Your task to perform on an android device: open app "WhatsApp Messenger" (install if not already installed) and enter user name: "cartons@outlook.com" and password: "approximated" Image 0: 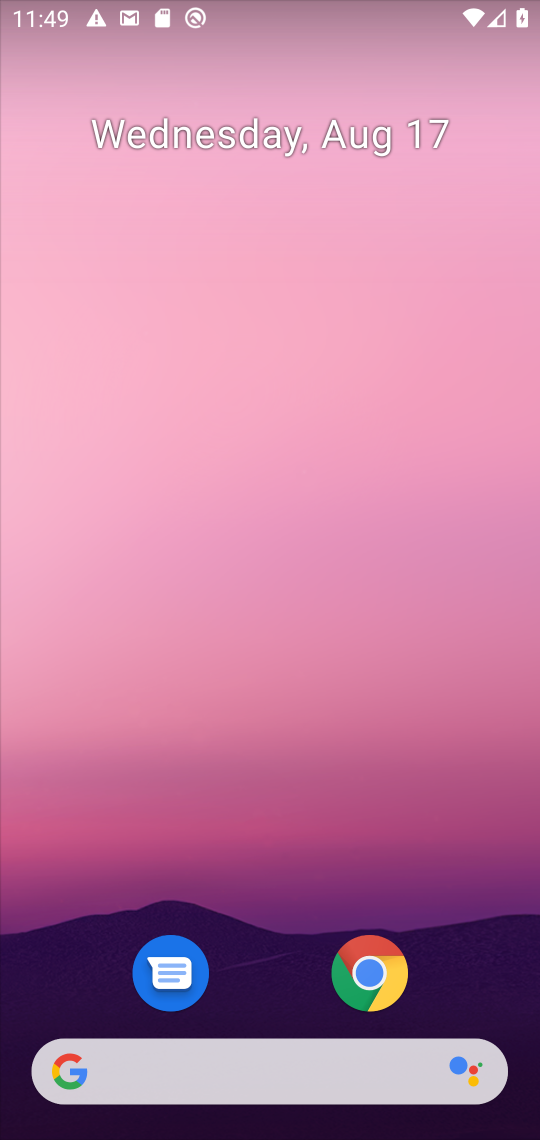
Step 0: drag from (277, 832) to (279, 131)
Your task to perform on an android device: open app "WhatsApp Messenger" (install if not already installed) and enter user name: "cartons@outlook.com" and password: "approximated" Image 1: 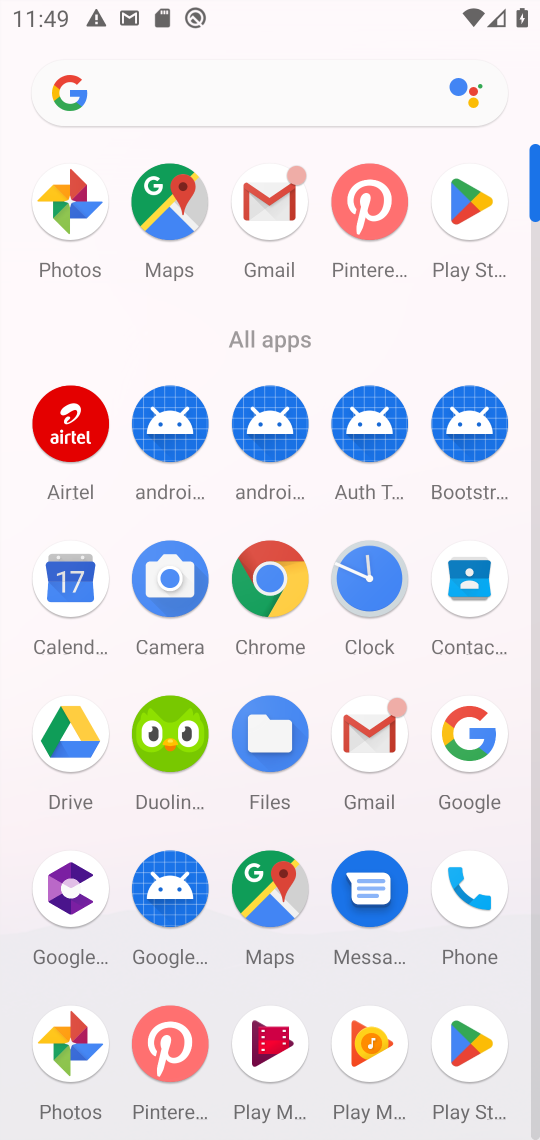
Step 1: click (466, 197)
Your task to perform on an android device: open app "WhatsApp Messenger" (install if not already installed) and enter user name: "cartons@outlook.com" and password: "approximated" Image 2: 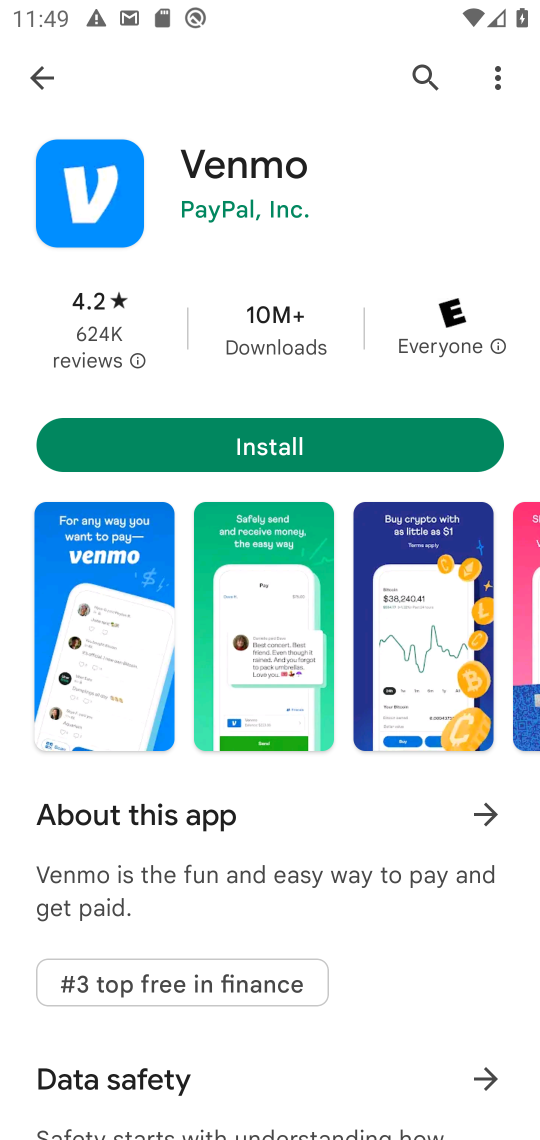
Step 2: click (422, 69)
Your task to perform on an android device: open app "WhatsApp Messenger" (install if not already installed) and enter user name: "cartons@outlook.com" and password: "approximated" Image 3: 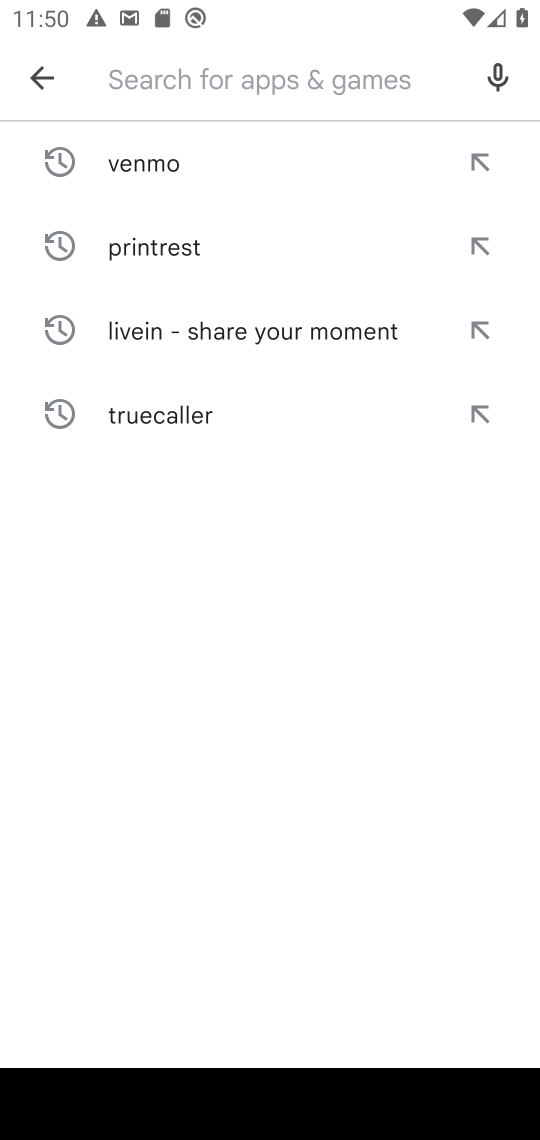
Step 3: type "WhatsApp Messenge"
Your task to perform on an android device: open app "WhatsApp Messenger" (install if not already installed) and enter user name: "cartons@outlook.com" and password: "approximated" Image 4: 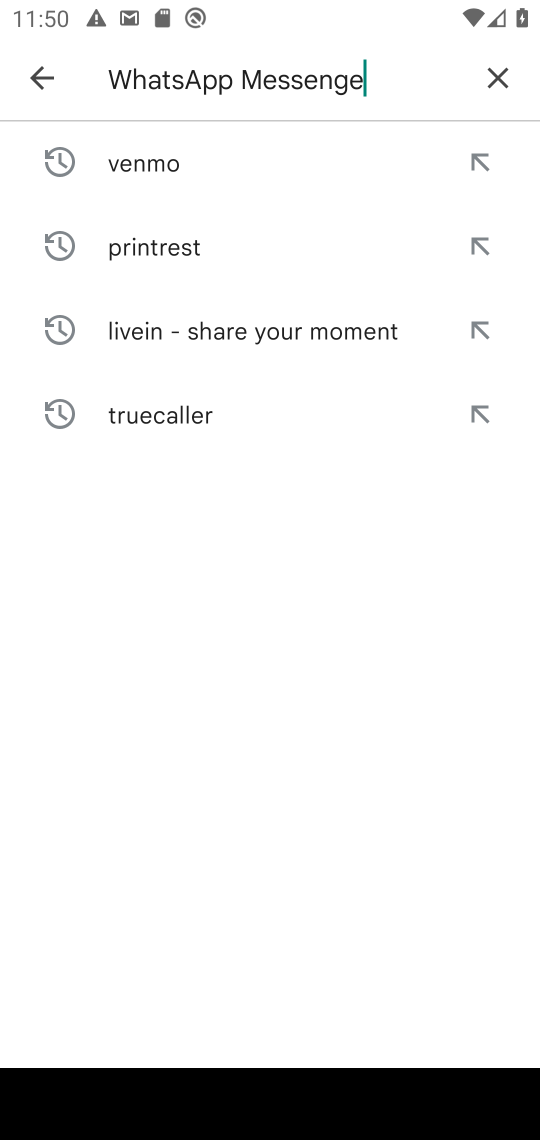
Step 4: type ""
Your task to perform on an android device: open app "WhatsApp Messenger" (install if not already installed) and enter user name: "cartons@outlook.com" and password: "approximated" Image 5: 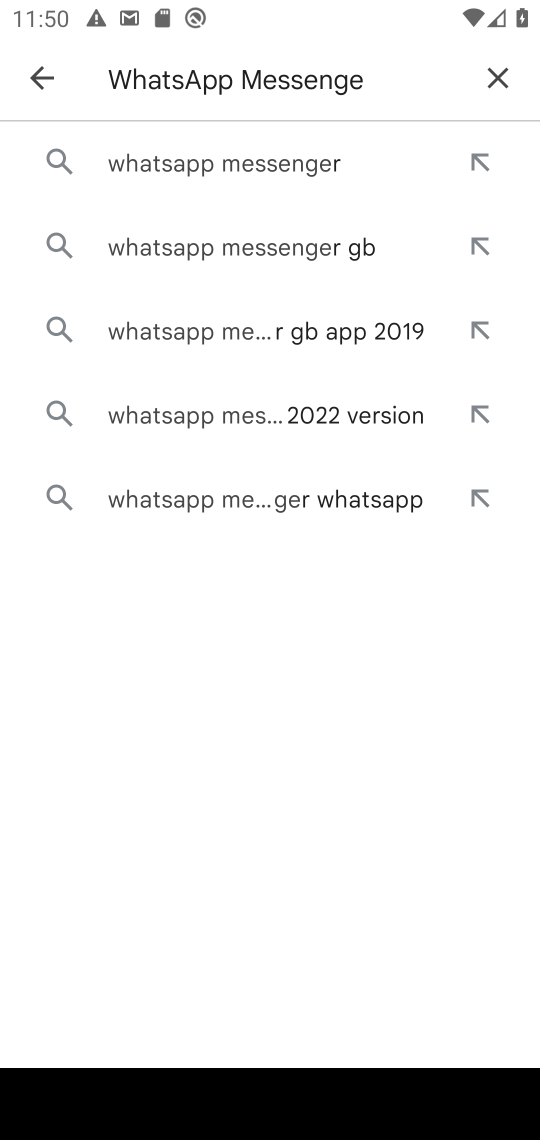
Step 5: click (245, 166)
Your task to perform on an android device: open app "WhatsApp Messenger" (install if not already installed) and enter user name: "cartons@outlook.com" and password: "approximated" Image 6: 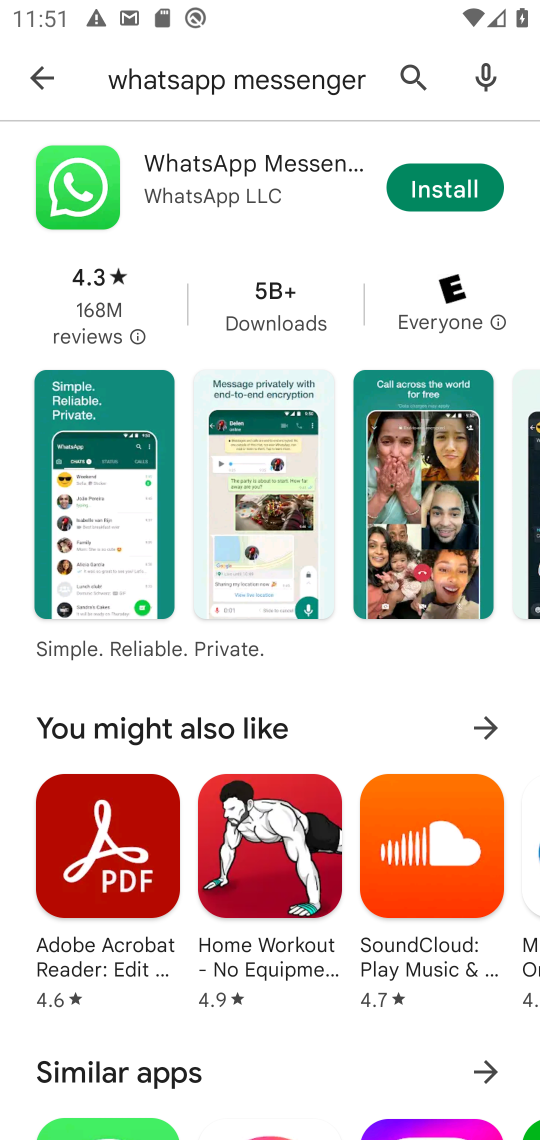
Step 6: click (448, 193)
Your task to perform on an android device: open app "WhatsApp Messenger" (install if not already installed) and enter user name: "cartons@outlook.com" and password: "approximated" Image 7: 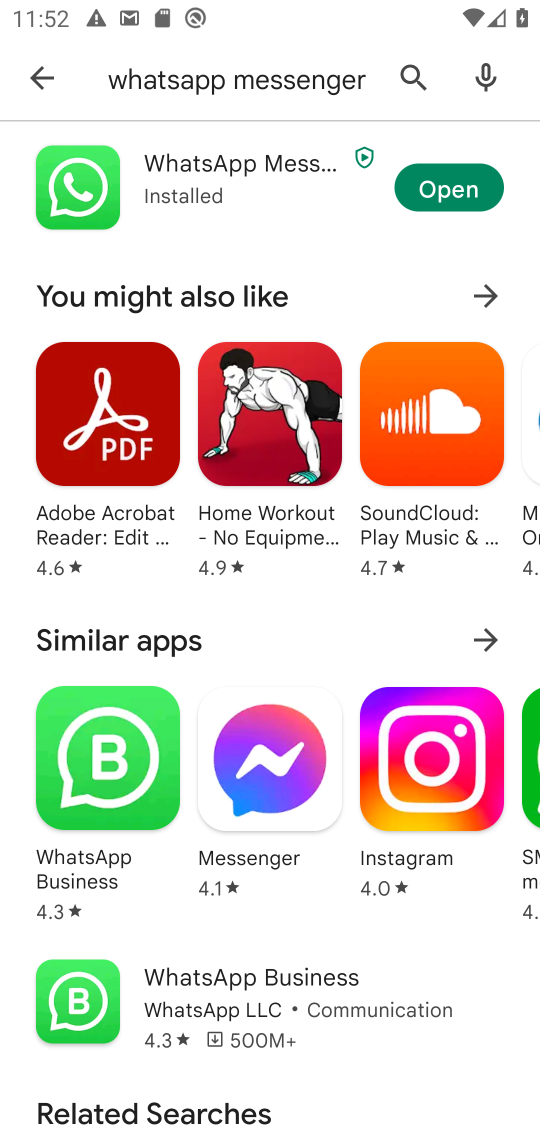
Step 7: click (455, 184)
Your task to perform on an android device: open app "WhatsApp Messenger" (install if not already installed) and enter user name: "cartons@outlook.com" and password: "approximated" Image 8: 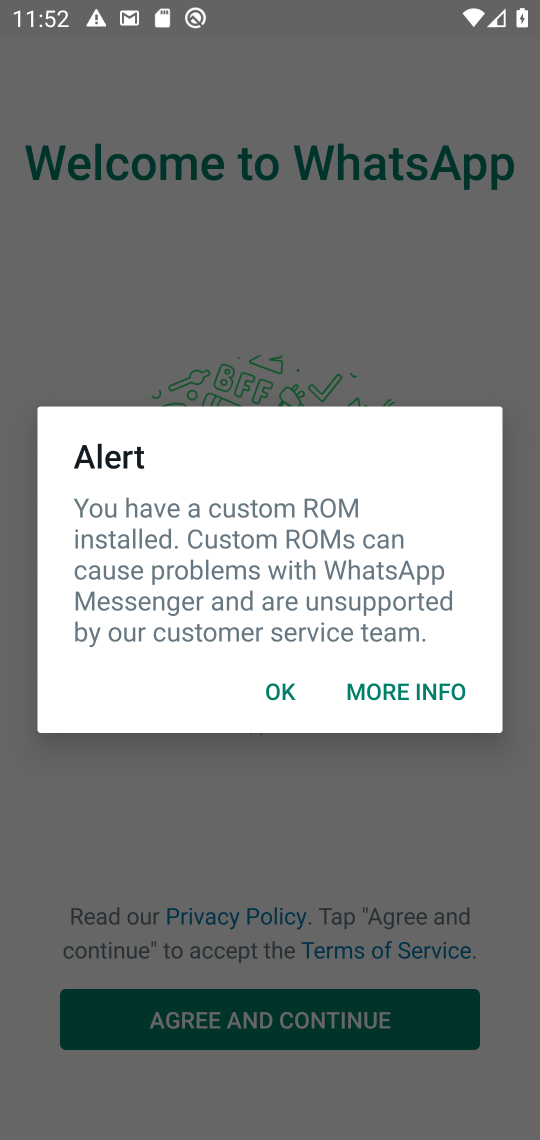
Step 8: click (275, 684)
Your task to perform on an android device: open app "WhatsApp Messenger" (install if not already installed) and enter user name: "cartons@outlook.com" and password: "approximated" Image 9: 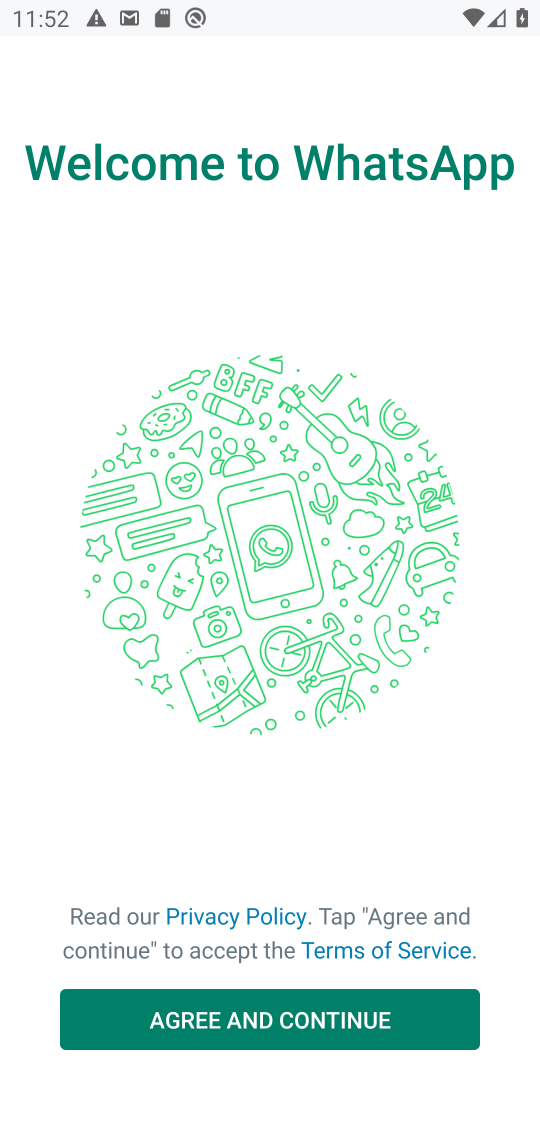
Step 9: click (320, 1018)
Your task to perform on an android device: open app "WhatsApp Messenger" (install if not already installed) and enter user name: "cartons@outlook.com" and password: "approximated" Image 10: 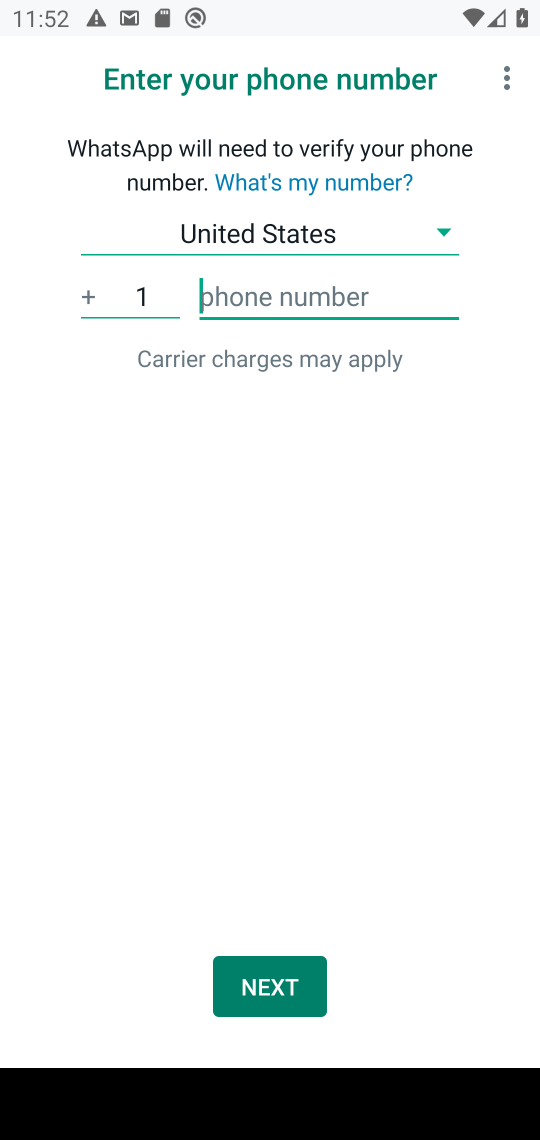
Step 10: task complete